Your task to perform on an android device: change timer sound Image 0: 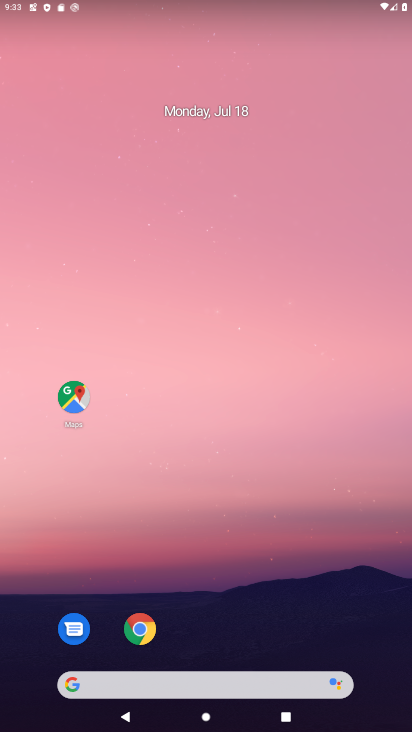
Step 0: drag from (343, 592) to (266, 117)
Your task to perform on an android device: change timer sound Image 1: 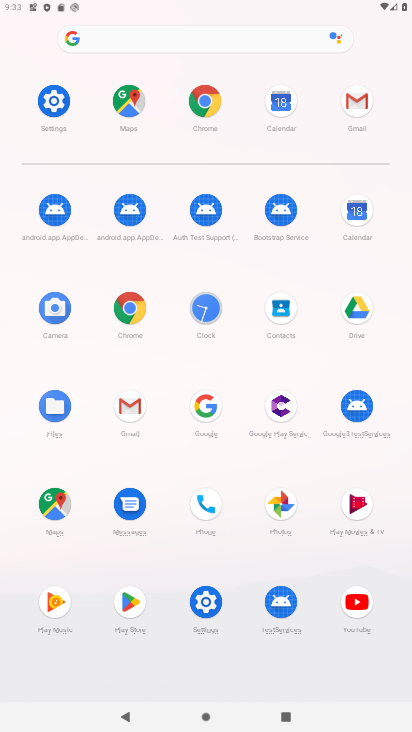
Step 1: click (210, 308)
Your task to perform on an android device: change timer sound Image 2: 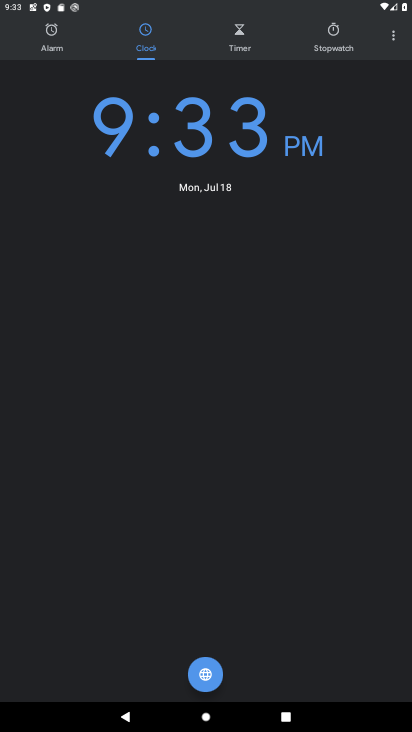
Step 2: click (389, 32)
Your task to perform on an android device: change timer sound Image 3: 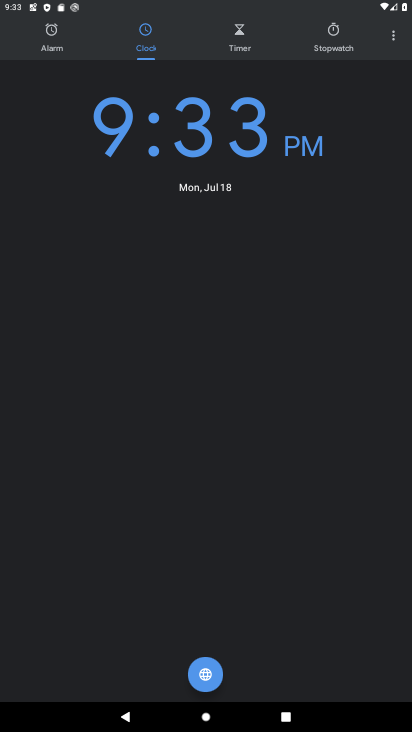
Step 3: click (389, 31)
Your task to perform on an android device: change timer sound Image 4: 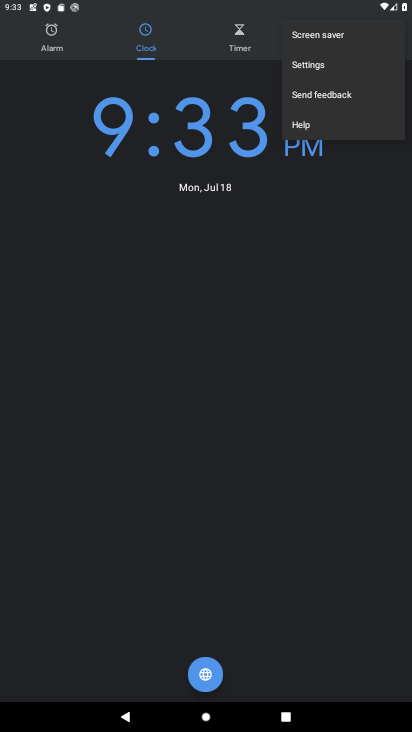
Step 4: click (320, 61)
Your task to perform on an android device: change timer sound Image 5: 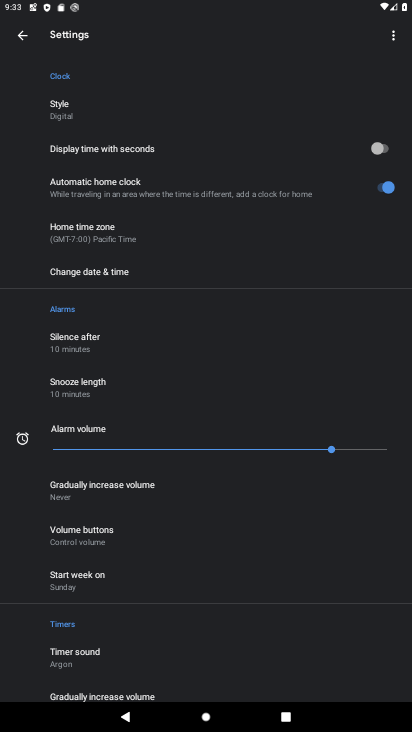
Step 5: click (82, 660)
Your task to perform on an android device: change timer sound Image 6: 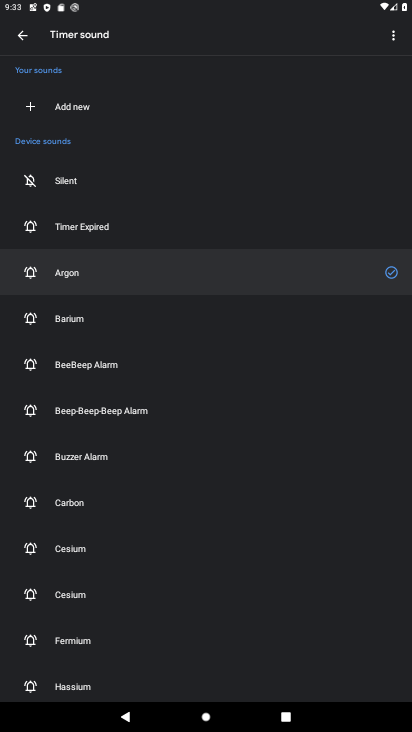
Step 6: click (66, 321)
Your task to perform on an android device: change timer sound Image 7: 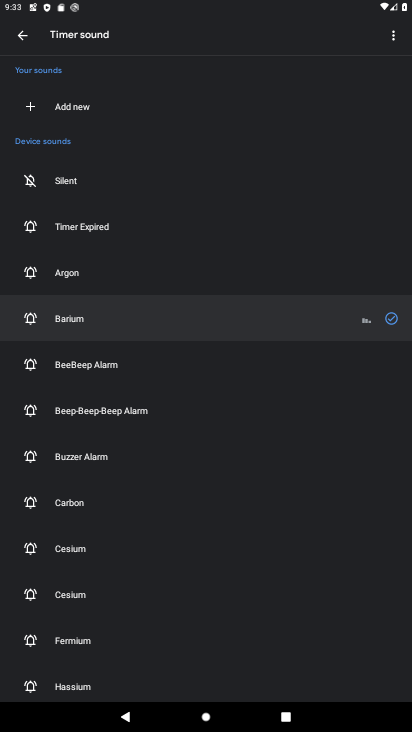
Step 7: task complete